Your task to perform on an android device: turn on showing notifications on the lock screen Image 0: 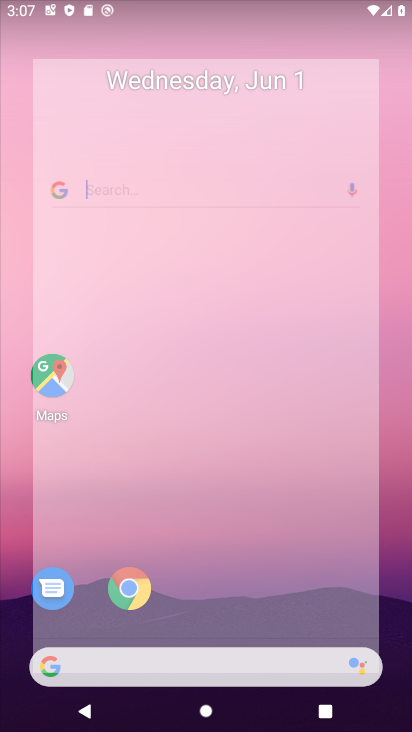
Step 0: drag from (263, 511) to (279, 158)
Your task to perform on an android device: turn on showing notifications on the lock screen Image 1: 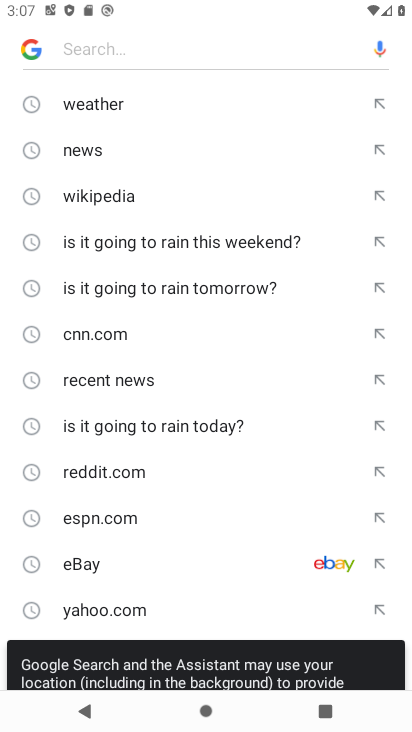
Step 1: press home button
Your task to perform on an android device: turn on showing notifications on the lock screen Image 2: 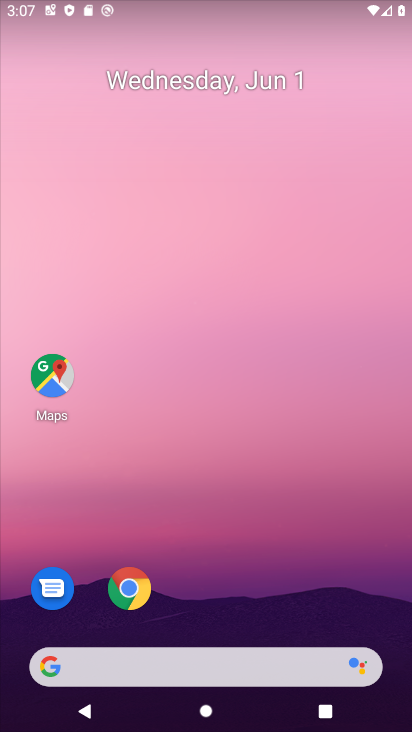
Step 2: drag from (275, 589) to (341, 129)
Your task to perform on an android device: turn on showing notifications on the lock screen Image 3: 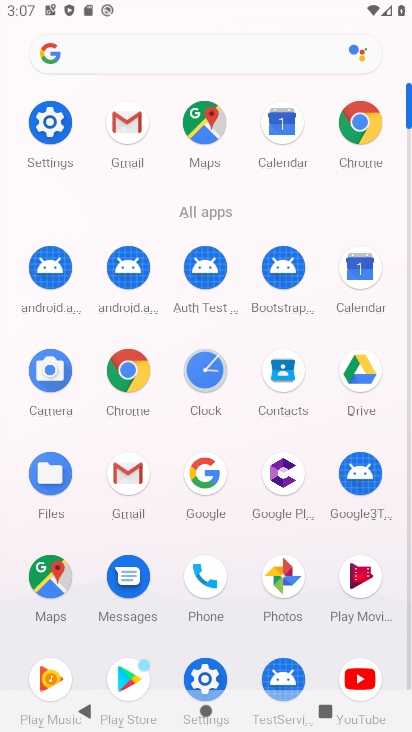
Step 3: click (57, 132)
Your task to perform on an android device: turn on showing notifications on the lock screen Image 4: 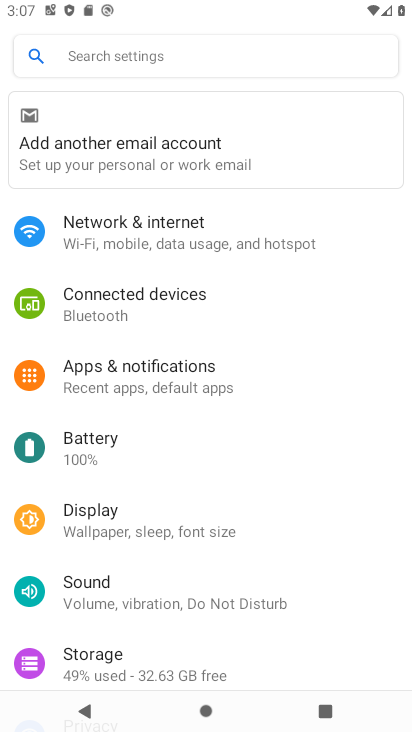
Step 4: click (117, 378)
Your task to perform on an android device: turn on showing notifications on the lock screen Image 5: 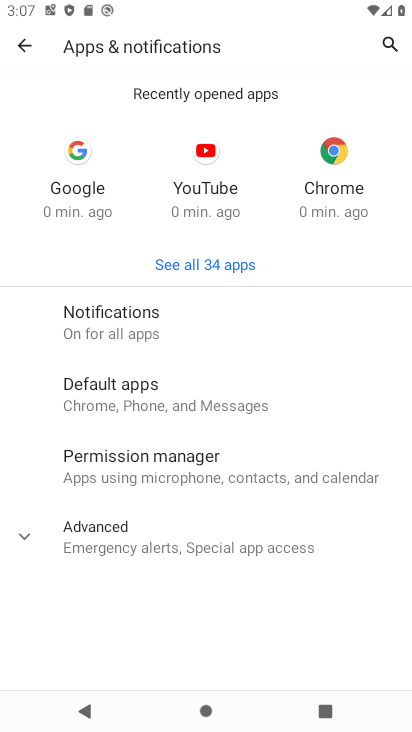
Step 5: click (142, 319)
Your task to perform on an android device: turn on showing notifications on the lock screen Image 6: 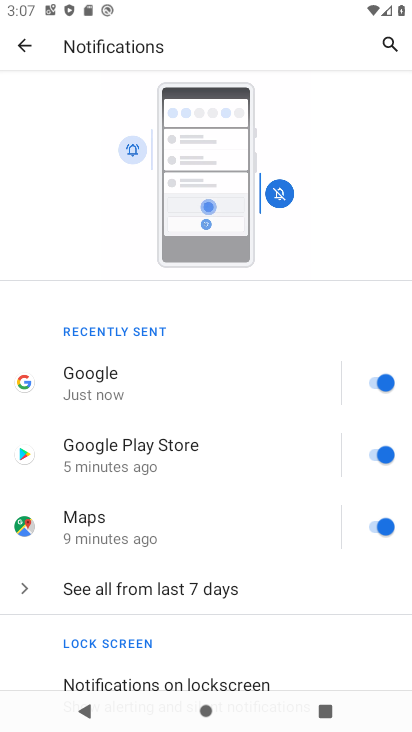
Step 6: drag from (328, 609) to (286, 344)
Your task to perform on an android device: turn on showing notifications on the lock screen Image 7: 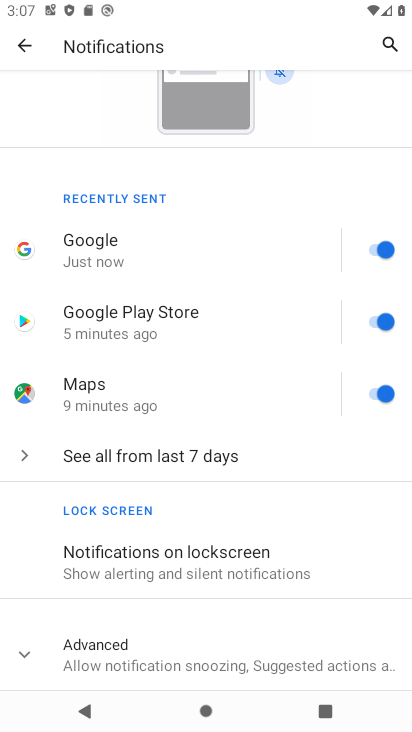
Step 7: click (265, 553)
Your task to perform on an android device: turn on showing notifications on the lock screen Image 8: 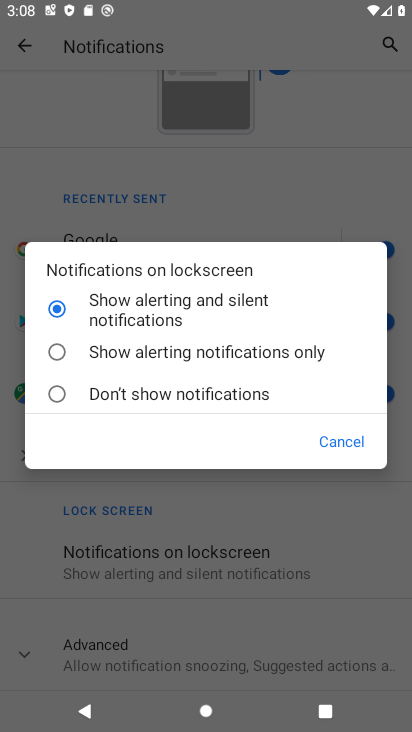
Step 8: task complete